Your task to perform on an android device: open chrome and create a bookmark for the current page Image 0: 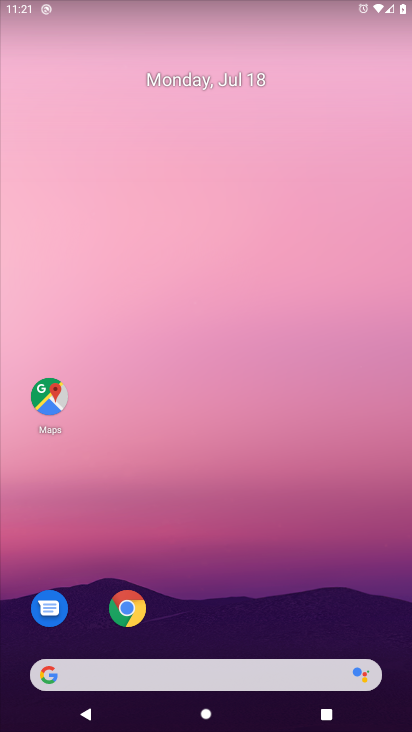
Step 0: click (137, 616)
Your task to perform on an android device: open chrome and create a bookmark for the current page Image 1: 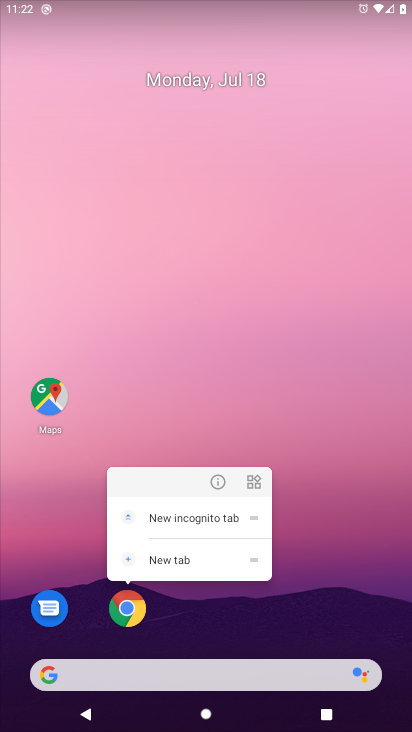
Step 1: click (136, 616)
Your task to perform on an android device: open chrome and create a bookmark for the current page Image 2: 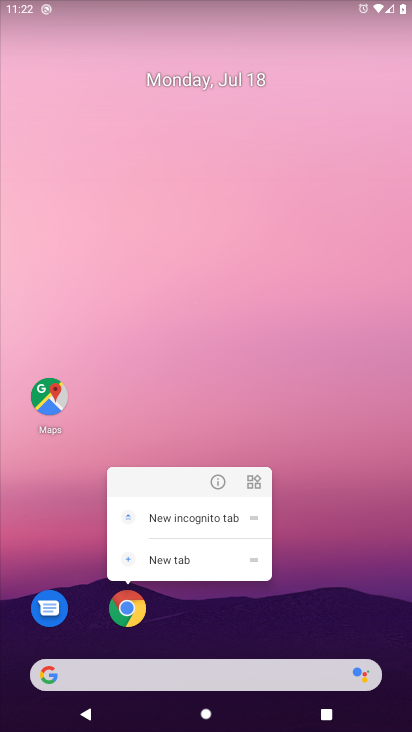
Step 2: click (107, 612)
Your task to perform on an android device: open chrome and create a bookmark for the current page Image 3: 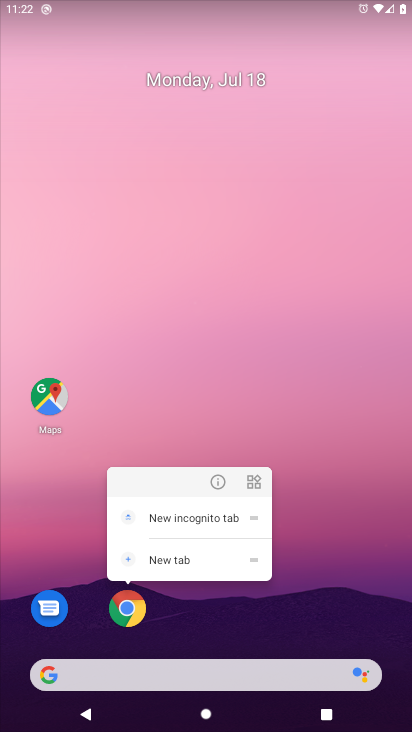
Step 3: click (136, 612)
Your task to perform on an android device: open chrome and create a bookmark for the current page Image 4: 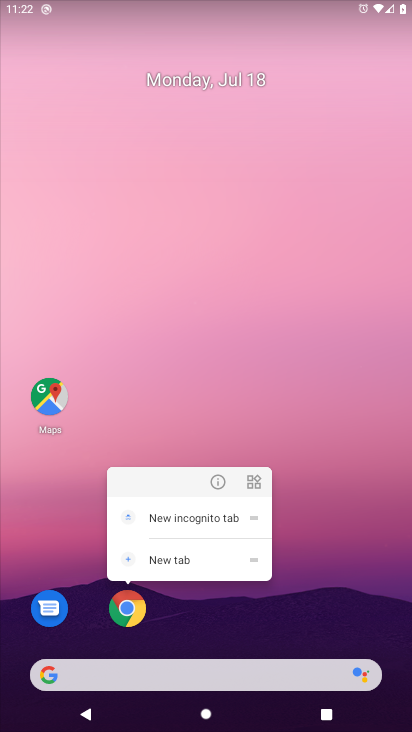
Step 4: task complete